Your task to perform on an android device: Do I have any events this weekend? Image 0: 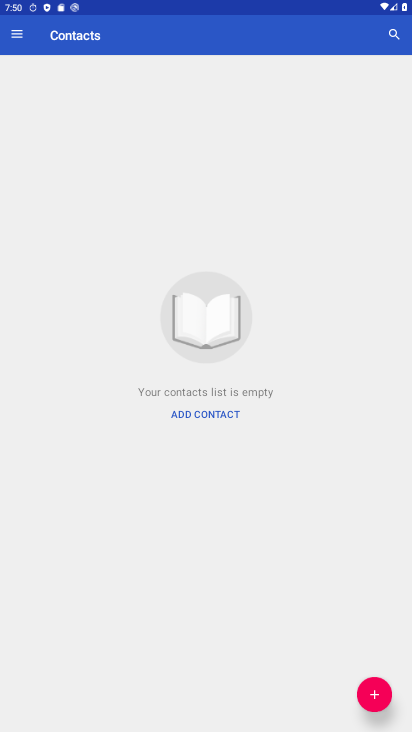
Step 0: press home button
Your task to perform on an android device: Do I have any events this weekend? Image 1: 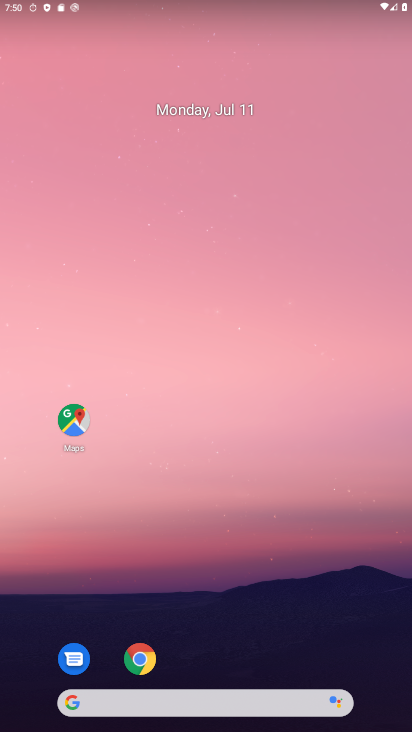
Step 1: drag from (296, 691) to (249, 118)
Your task to perform on an android device: Do I have any events this weekend? Image 2: 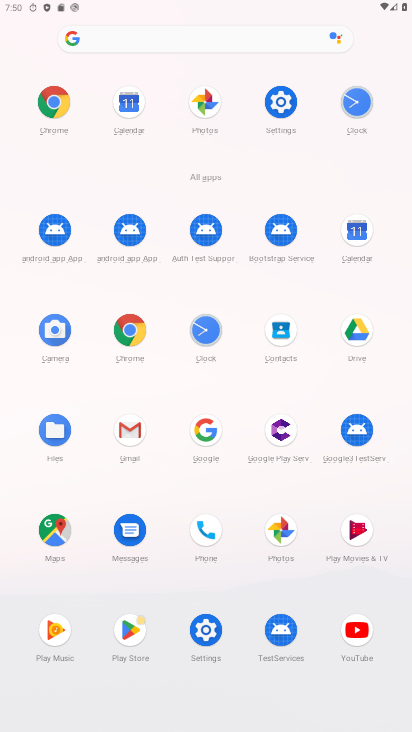
Step 2: click (361, 239)
Your task to perform on an android device: Do I have any events this weekend? Image 3: 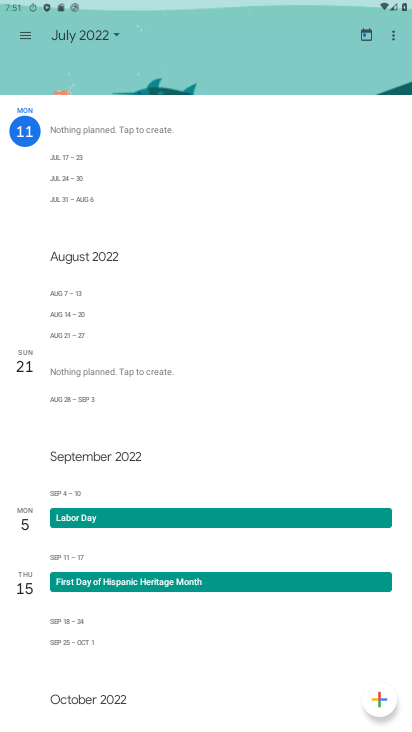
Step 3: task complete